Your task to perform on an android device: clear all cookies in the chrome app Image 0: 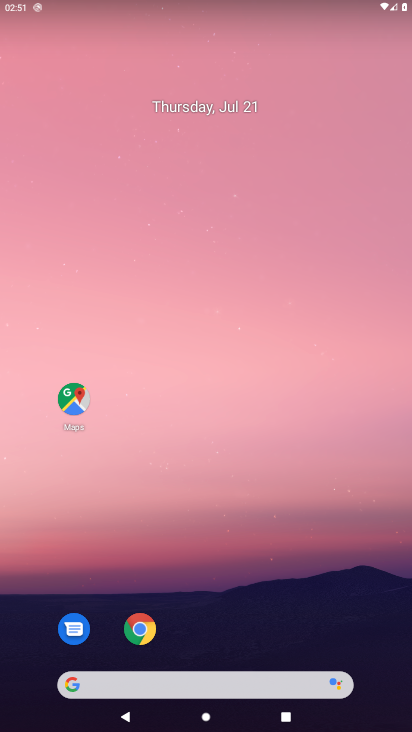
Step 0: click (143, 634)
Your task to perform on an android device: clear all cookies in the chrome app Image 1: 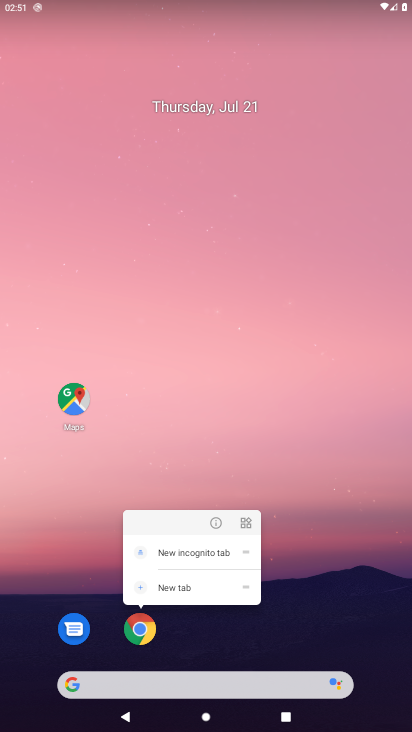
Step 1: click (154, 634)
Your task to perform on an android device: clear all cookies in the chrome app Image 2: 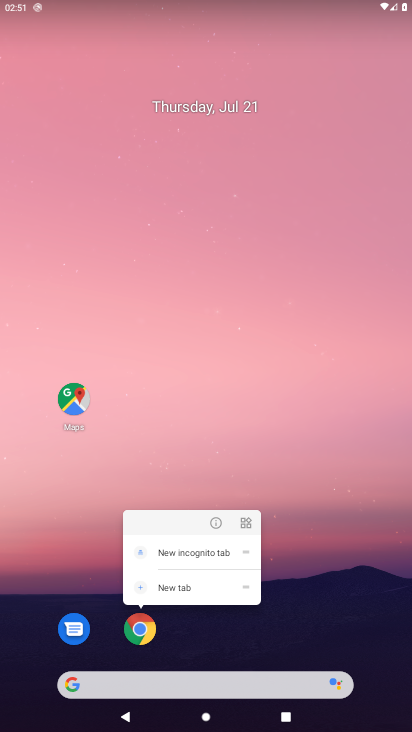
Step 2: click (144, 618)
Your task to perform on an android device: clear all cookies in the chrome app Image 3: 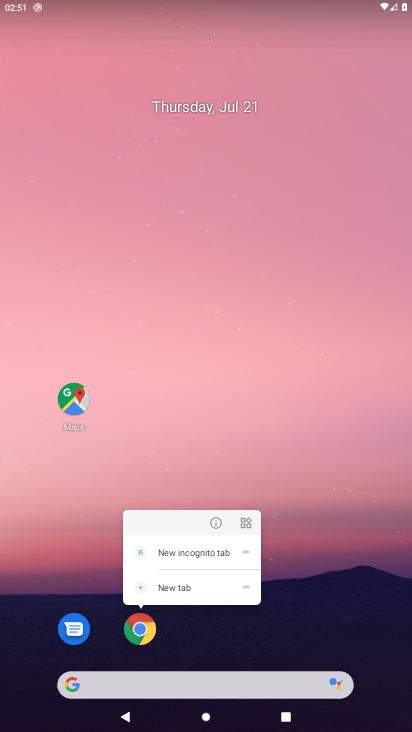
Step 3: click (146, 618)
Your task to perform on an android device: clear all cookies in the chrome app Image 4: 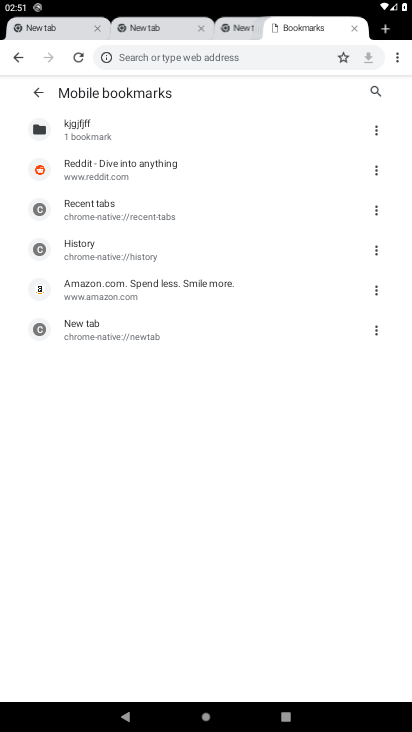
Step 4: click (394, 56)
Your task to perform on an android device: clear all cookies in the chrome app Image 5: 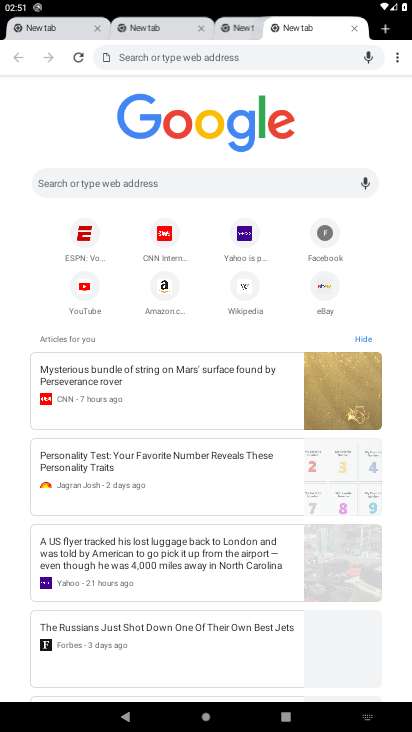
Step 5: click (393, 56)
Your task to perform on an android device: clear all cookies in the chrome app Image 6: 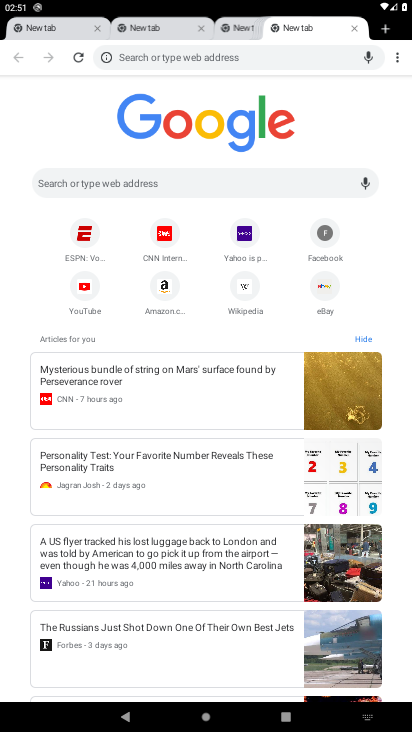
Step 6: click (396, 55)
Your task to perform on an android device: clear all cookies in the chrome app Image 7: 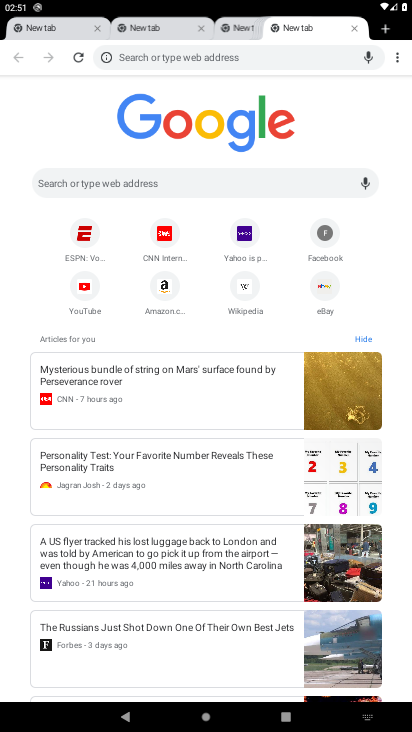
Step 7: task complete